Your task to perform on an android device: Is it going to rain tomorrow? Image 0: 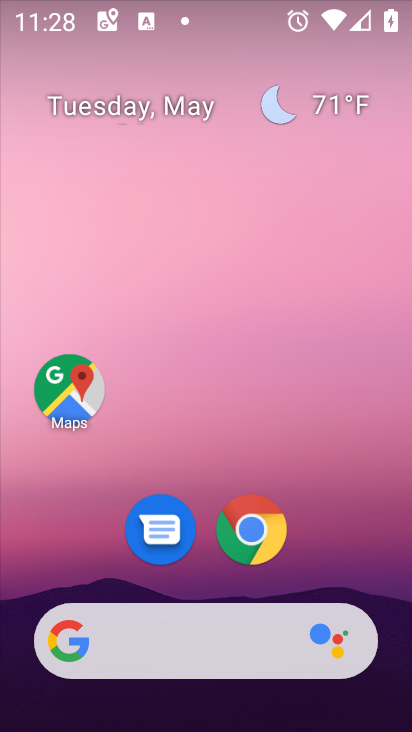
Step 0: drag from (201, 681) to (270, 127)
Your task to perform on an android device: Is it going to rain tomorrow? Image 1: 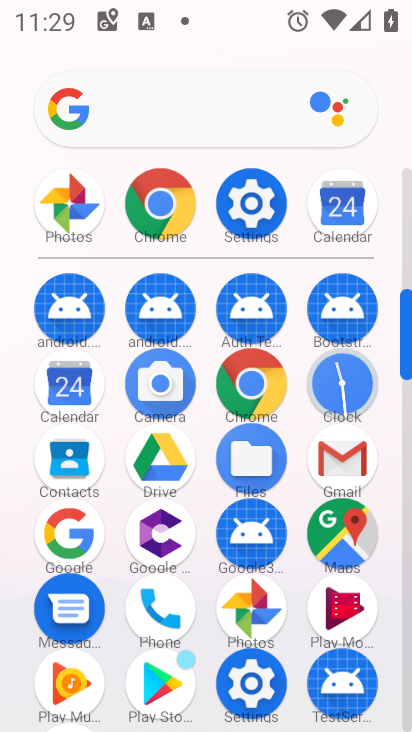
Step 1: click (78, 534)
Your task to perform on an android device: Is it going to rain tomorrow? Image 2: 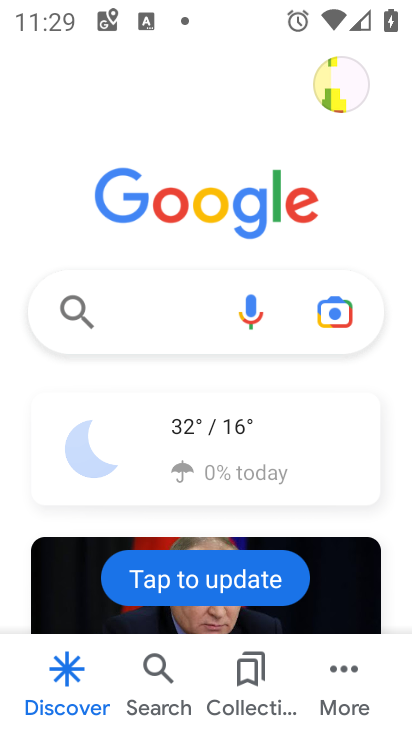
Step 2: click (207, 322)
Your task to perform on an android device: Is it going to rain tomorrow? Image 3: 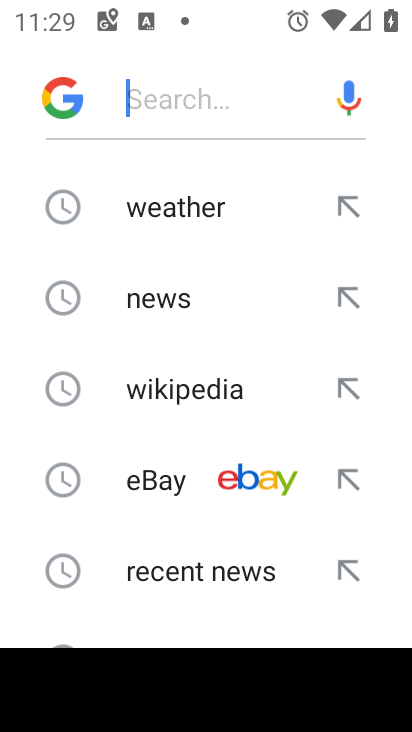
Step 3: click (203, 196)
Your task to perform on an android device: Is it going to rain tomorrow? Image 4: 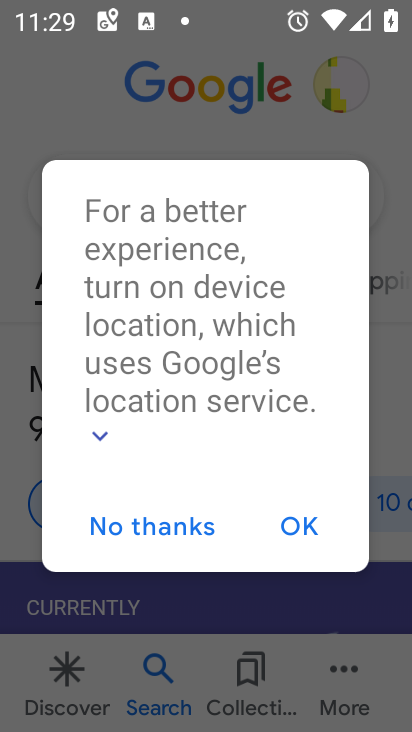
Step 4: click (300, 530)
Your task to perform on an android device: Is it going to rain tomorrow? Image 5: 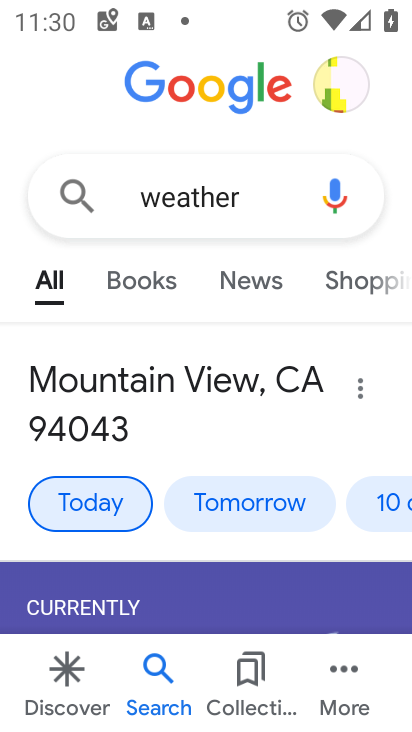
Step 5: click (249, 501)
Your task to perform on an android device: Is it going to rain tomorrow? Image 6: 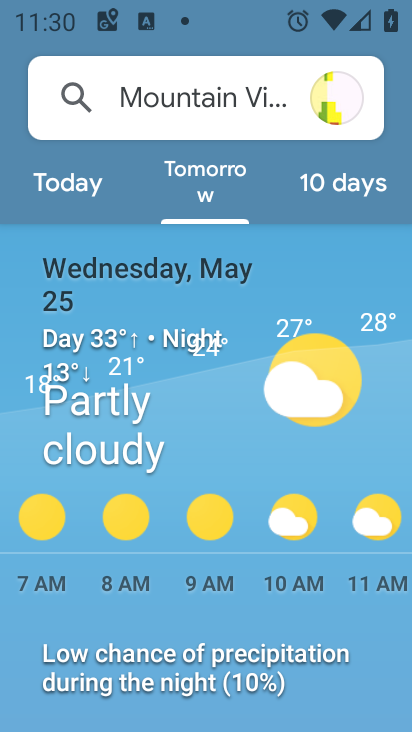
Step 6: task complete